Your task to perform on an android device: Open notification settings Image 0: 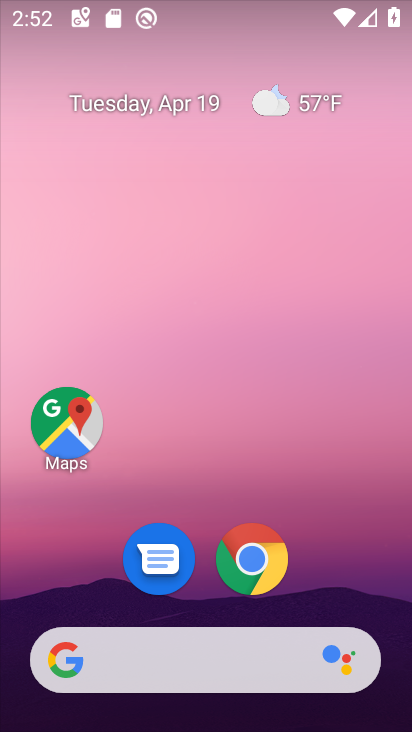
Step 0: click (254, 535)
Your task to perform on an android device: Open notification settings Image 1: 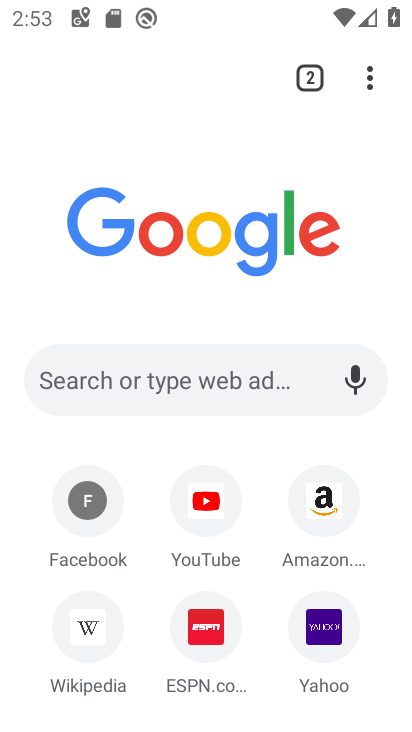
Step 1: press home button
Your task to perform on an android device: Open notification settings Image 2: 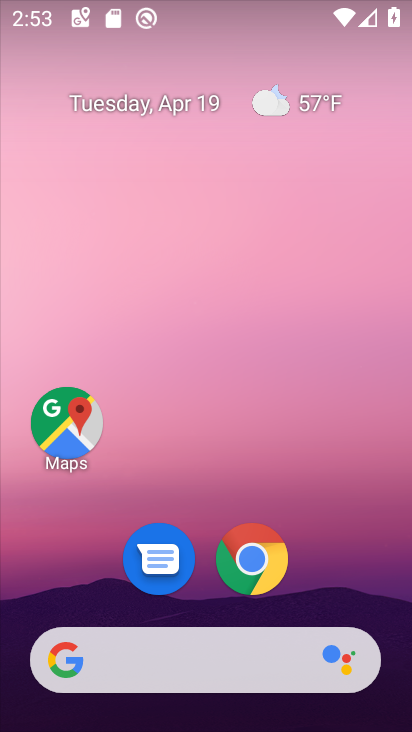
Step 2: drag from (198, 596) to (174, 59)
Your task to perform on an android device: Open notification settings Image 3: 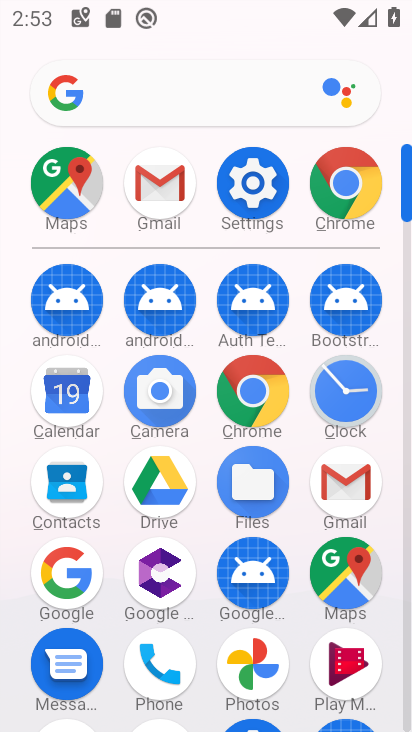
Step 3: click (249, 173)
Your task to perform on an android device: Open notification settings Image 4: 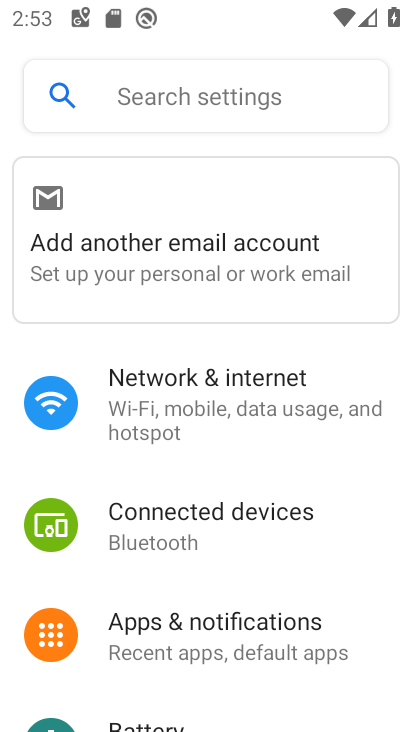
Step 4: click (213, 632)
Your task to perform on an android device: Open notification settings Image 5: 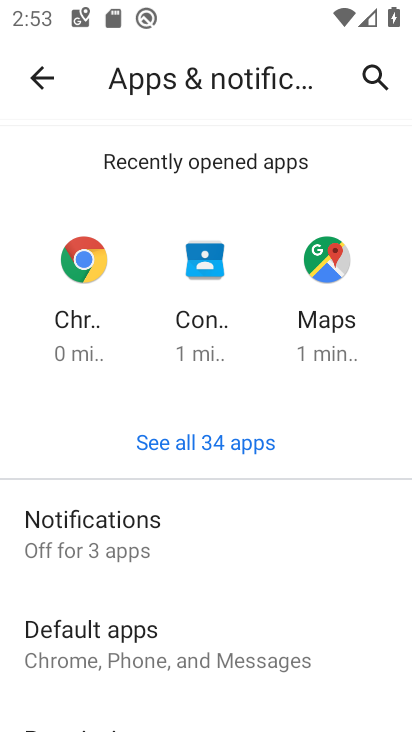
Step 5: click (171, 523)
Your task to perform on an android device: Open notification settings Image 6: 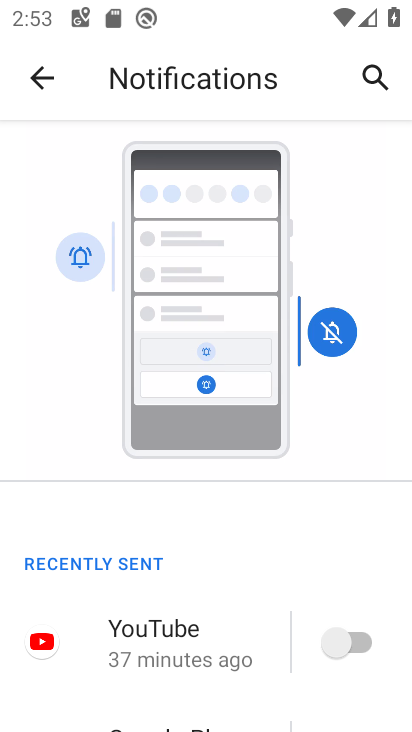
Step 6: drag from (263, 602) to (268, 120)
Your task to perform on an android device: Open notification settings Image 7: 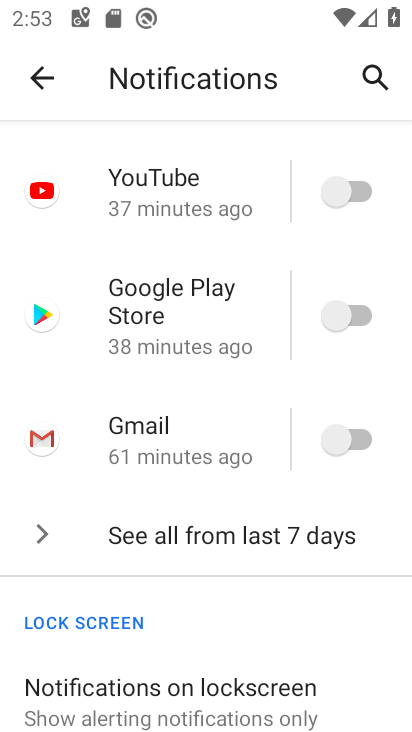
Step 7: click (358, 190)
Your task to perform on an android device: Open notification settings Image 8: 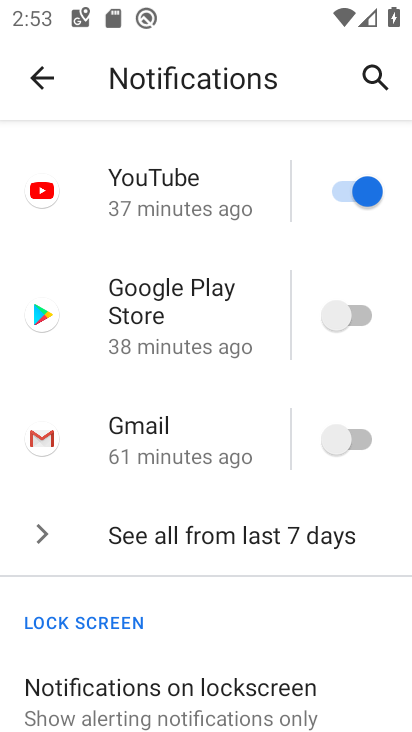
Step 8: click (353, 314)
Your task to perform on an android device: Open notification settings Image 9: 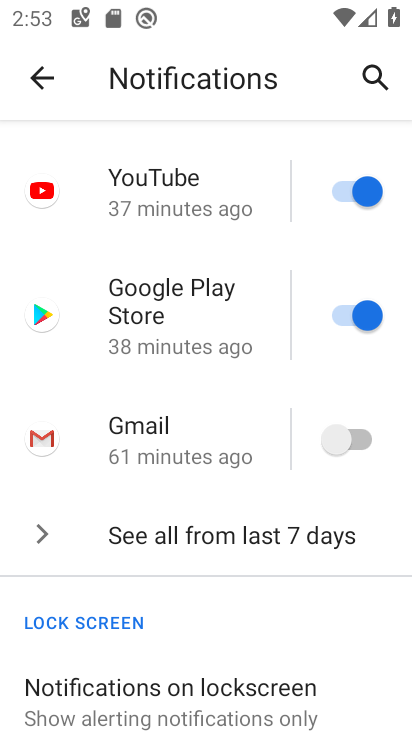
Step 9: click (356, 441)
Your task to perform on an android device: Open notification settings Image 10: 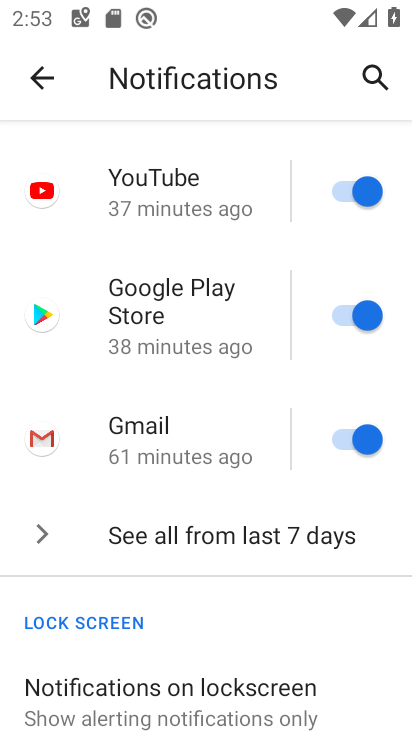
Step 10: drag from (228, 589) to (213, 129)
Your task to perform on an android device: Open notification settings Image 11: 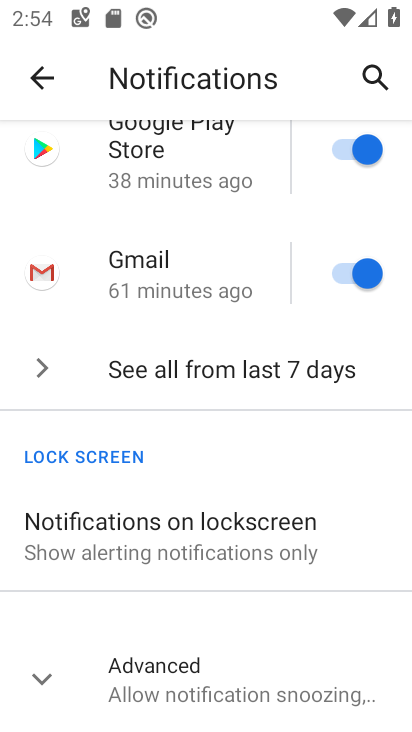
Step 11: click (195, 527)
Your task to perform on an android device: Open notification settings Image 12: 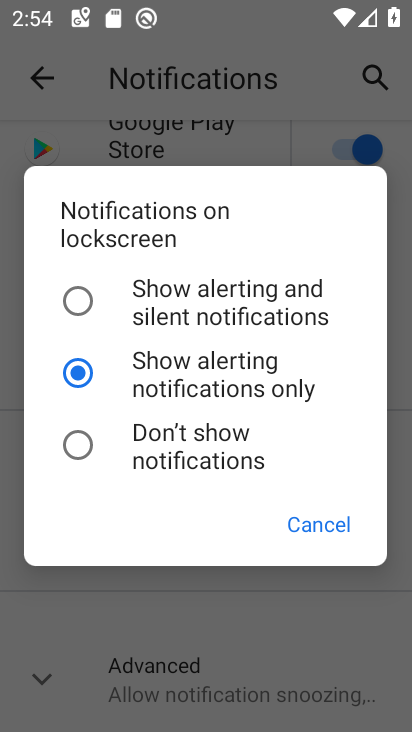
Step 12: click (84, 297)
Your task to perform on an android device: Open notification settings Image 13: 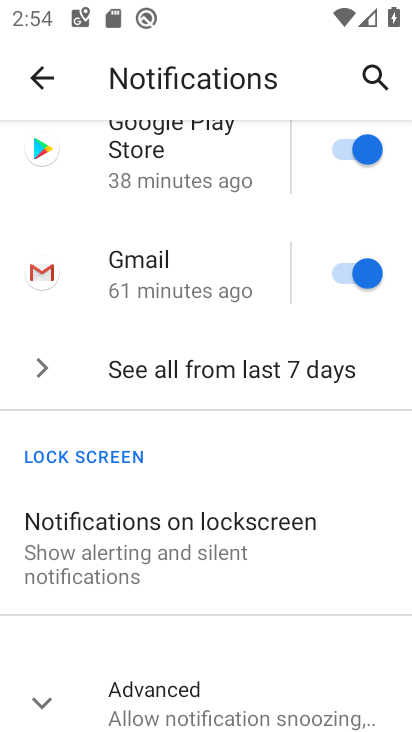
Step 13: task complete